Your task to perform on an android device: see sites visited before in the chrome app Image 0: 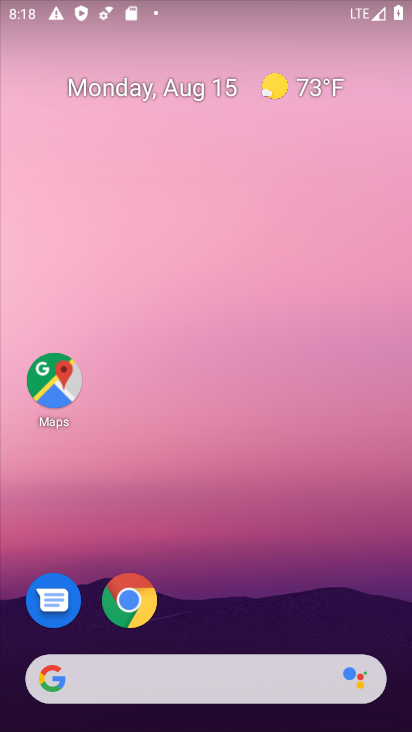
Step 0: drag from (213, 597) to (172, 133)
Your task to perform on an android device: see sites visited before in the chrome app Image 1: 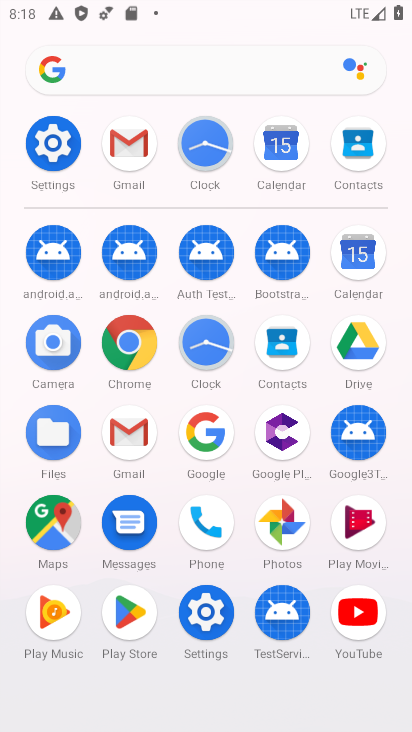
Step 1: click (127, 345)
Your task to perform on an android device: see sites visited before in the chrome app Image 2: 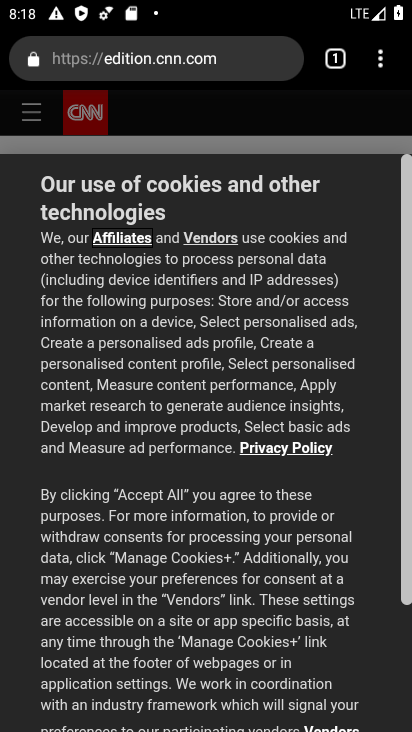
Step 2: click (381, 62)
Your task to perform on an android device: see sites visited before in the chrome app Image 3: 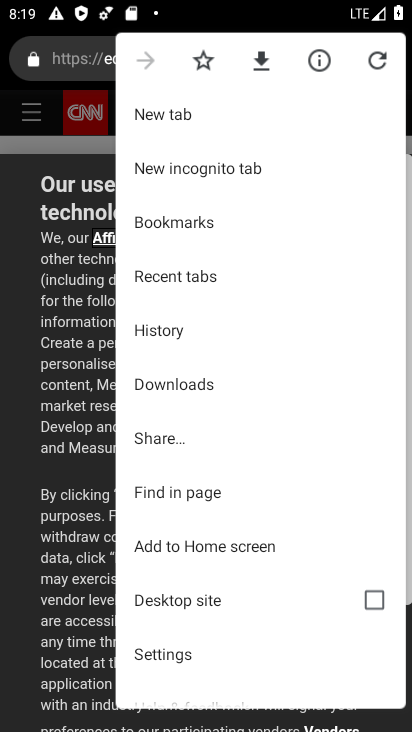
Step 3: click (192, 270)
Your task to perform on an android device: see sites visited before in the chrome app Image 4: 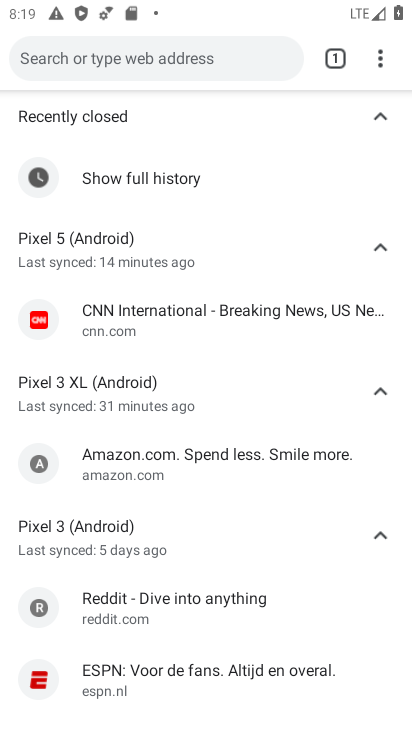
Step 4: task complete